Your task to perform on an android device: turn pop-ups off in chrome Image 0: 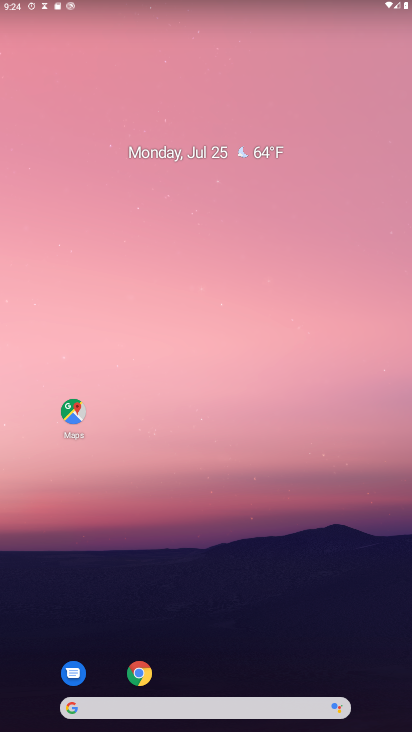
Step 0: press home button
Your task to perform on an android device: turn pop-ups off in chrome Image 1: 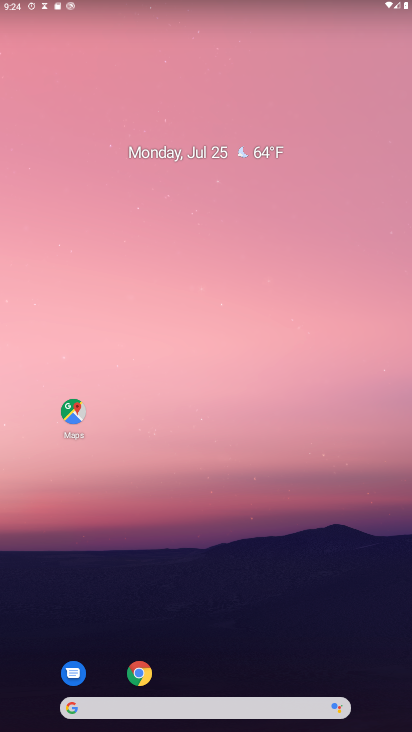
Step 1: click (136, 669)
Your task to perform on an android device: turn pop-ups off in chrome Image 2: 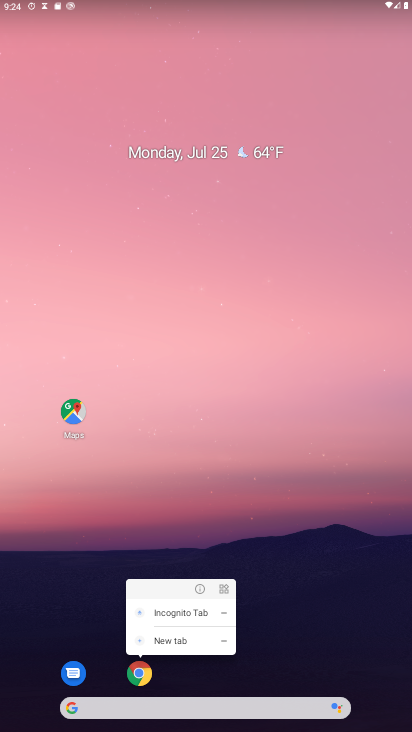
Step 2: click (136, 669)
Your task to perform on an android device: turn pop-ups off in chrome Image 3: 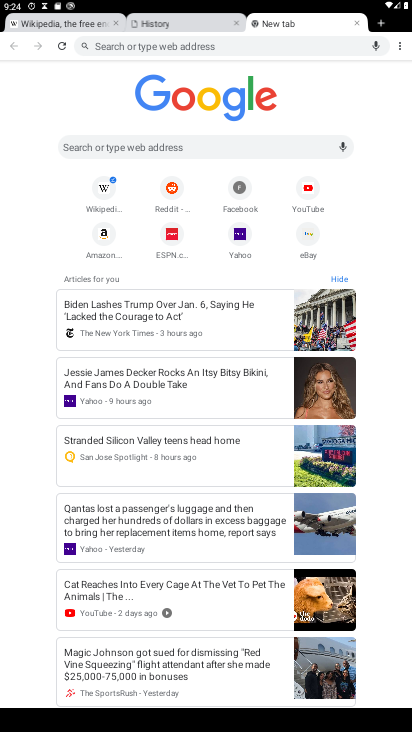
Step 3: click (398, 43)
Your task to perform on an android device: turn pop-ups off in chrome Image 4: 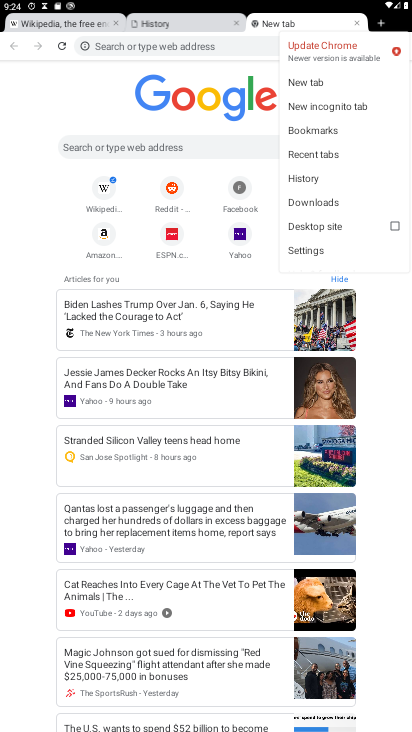
Step 4: click (328, 248)
Your task to perform on an android device: turn pop-ups off in chrome Image 5: 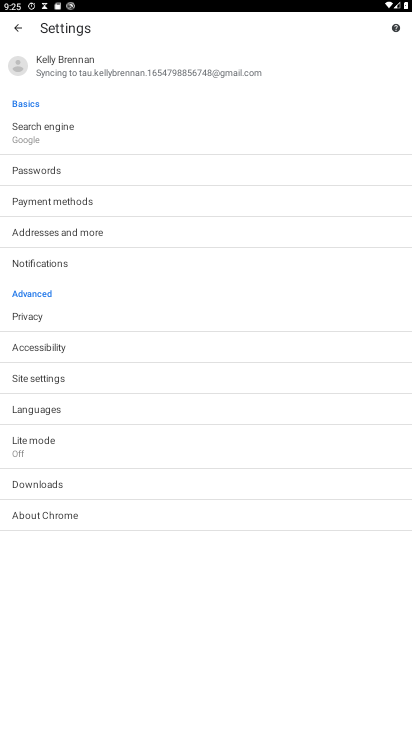
Step 5: click (75, 379)
Your task to perform on an android device: turn pop-ups off in chrome Image 6: 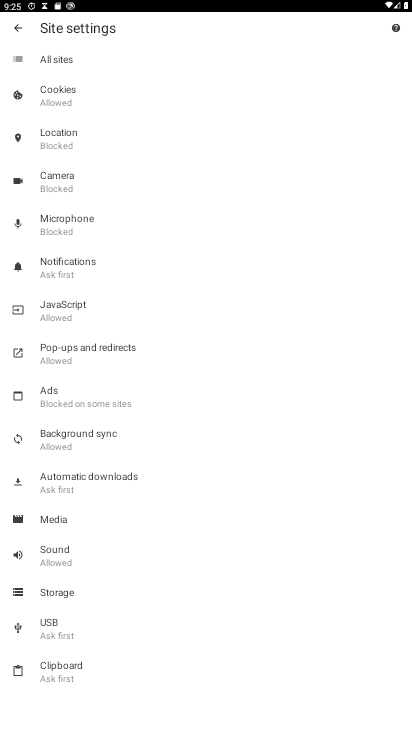
Step 6: click (110, 352)
Your task to perform on an android device: turn pop-ups off in chrome Image 7: 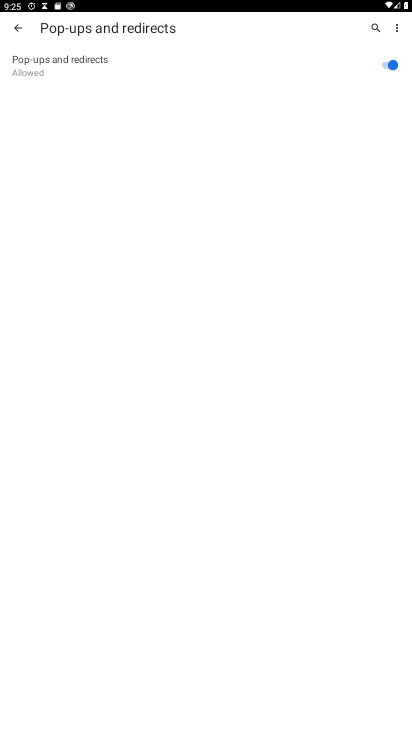
Step 7: click (384, 66)
Your task to perform on an android device: turn pop-ups off in chrome Image 8: 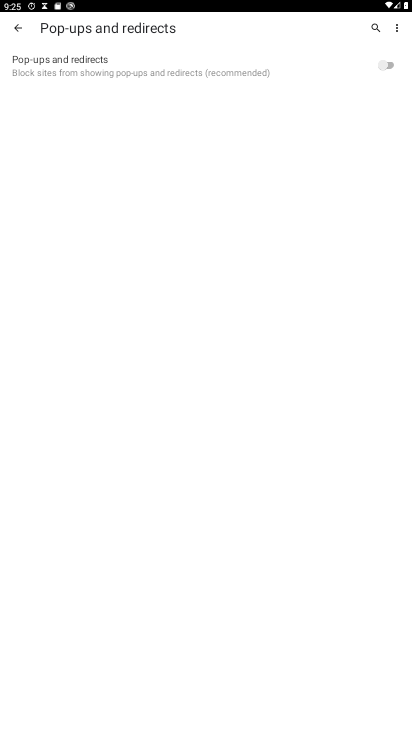
Step 8: task complete